Your task to perform on an android device: Is it going to rain this weekend? Image 0: 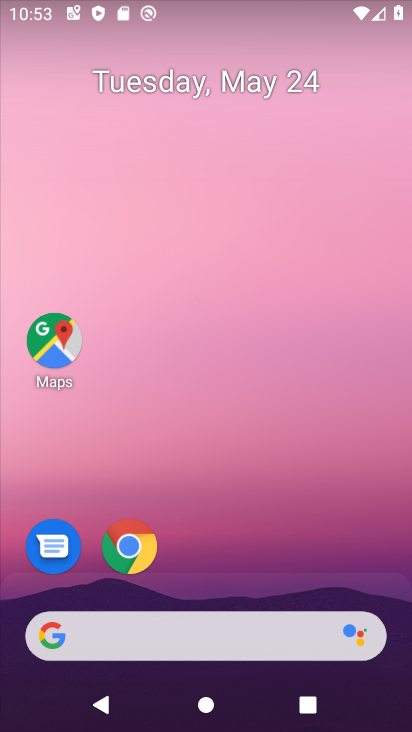
Step 0: click (160, 641)
Your task to perform on an android device: Is it going to rain this weekend? Image 1: 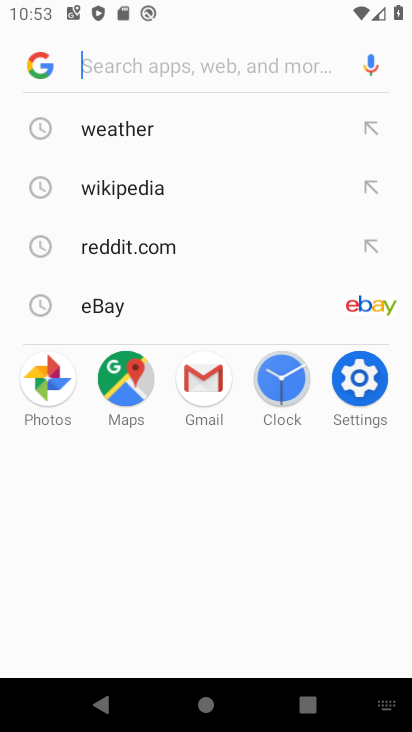
Step 1: click (156, 112)
Your task to perform on an android device: Is it going to rain this weekend? Image 2: 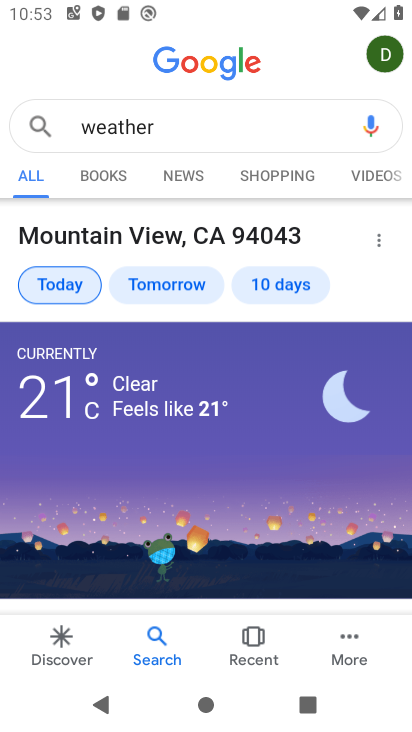
Step 2: click (260, 281)
Your task to perform on an android device: Is it going to rain this weekend? Image 3: 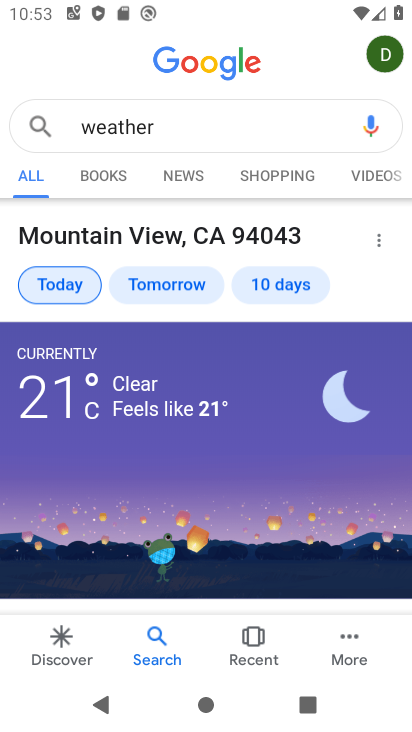
Step 3: click (269, 281)
Your task to perform on an android device: Is it going to rain this weekend? Image 4: 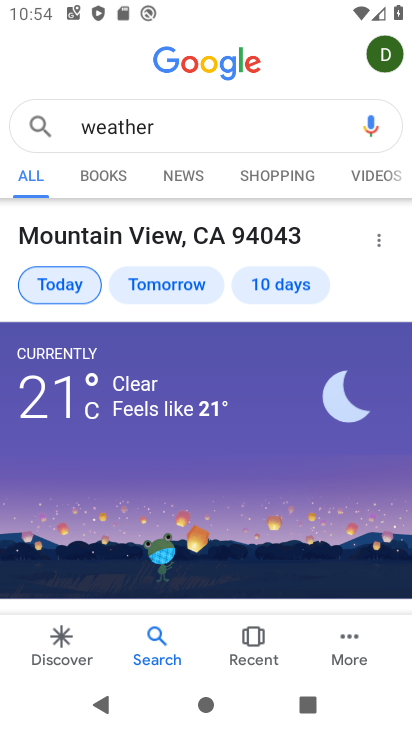
Step 4: drag from (162, 528) to (172, 121)
Your task to perform on an android device: Is it going to rain this weekend? Image 5: 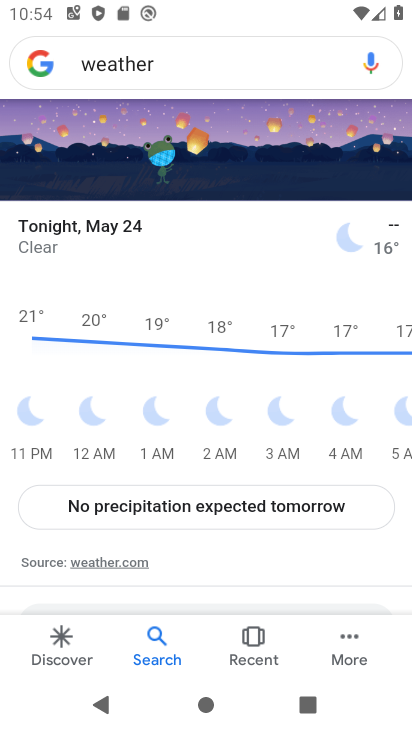
Step 5: click (177, 241)
Your task to perform on an android device: Is it going to rain this weekend? Image 6: 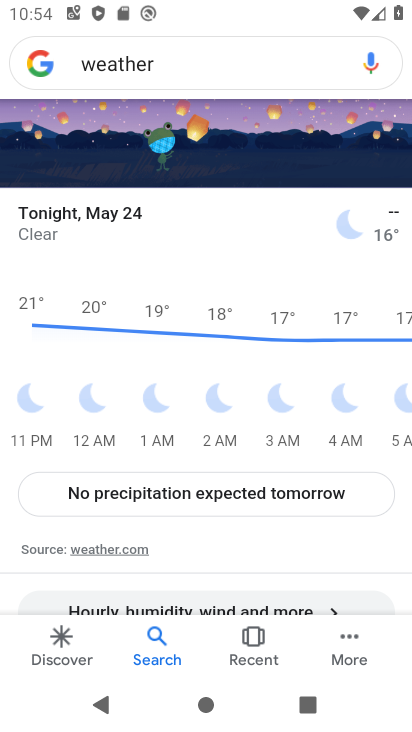
Step 6: drag from (222, 413) to (221, 213)
Your task to perform on an android device: Is it going to rain this weekend? Image 7: 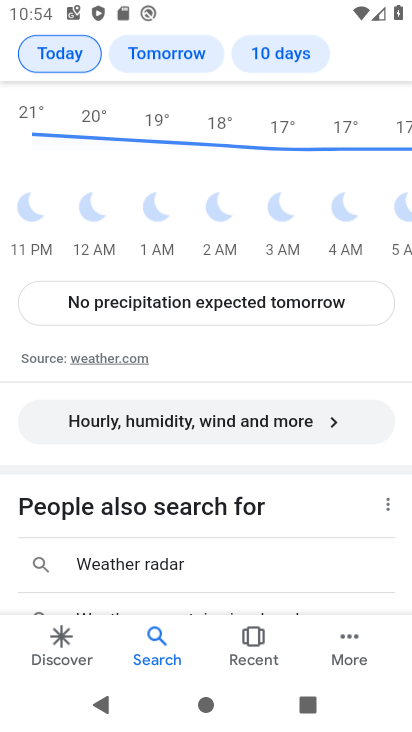
Step 7: click (89, 359)
Your task to perform on an android device: Is it going to rain this weekend? Image 8: 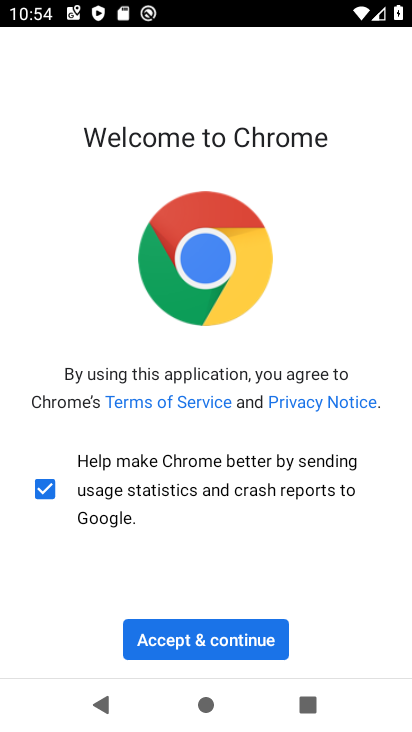
Step 8: click (244, 656)
Your task to perform on an android device: Is it going to rain this weekend? Image 9: 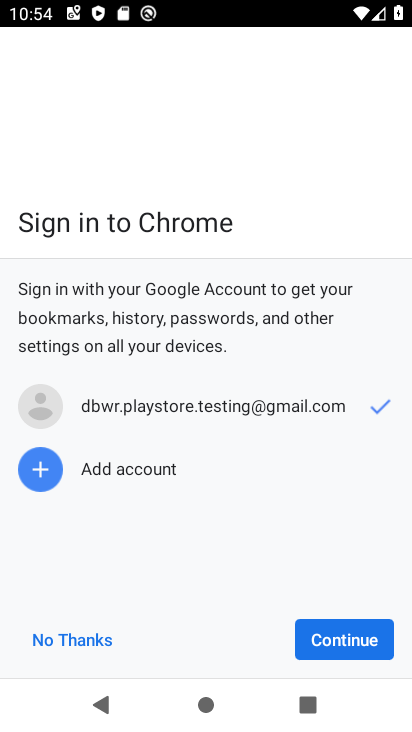
Step 9: click (340, 649)
Your task to perform on an android device: Is it going to rain this weekend? Image 10: 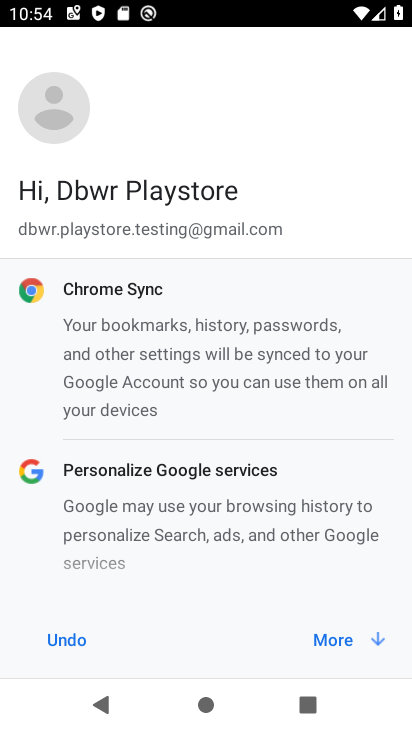
Step 10: click (340, 649)
Your task to perform on an android device: Is it going to rain this weekend? Image 11: 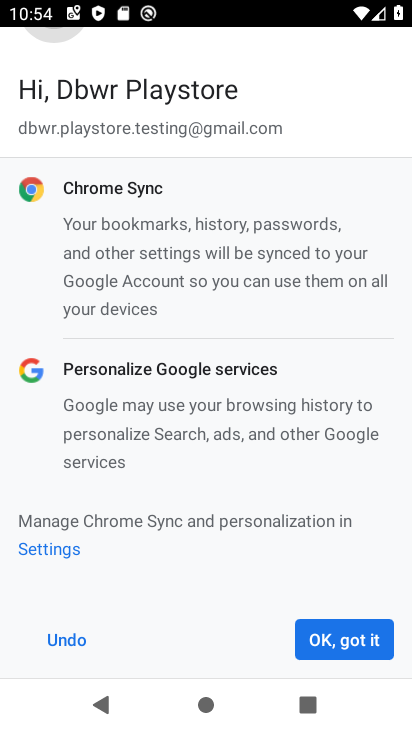
Step 11: click (340, 649)
Your task to perform on an android device: Is it going to rain this weekend? Image 12: 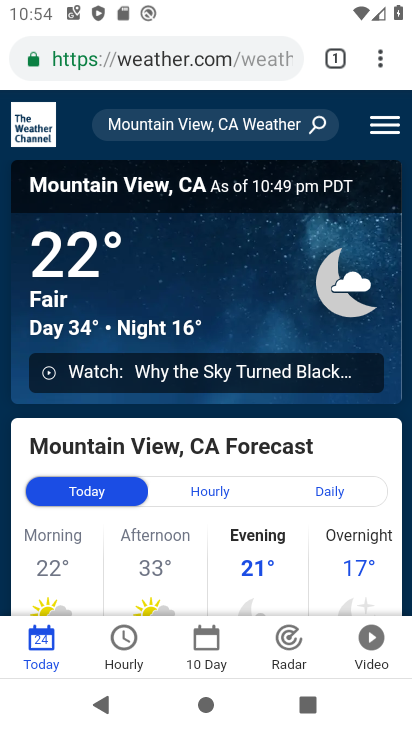
Step 12: click (209, 638)
Your task to perform on an android device: Is it going to rain this weekend? Image 13: 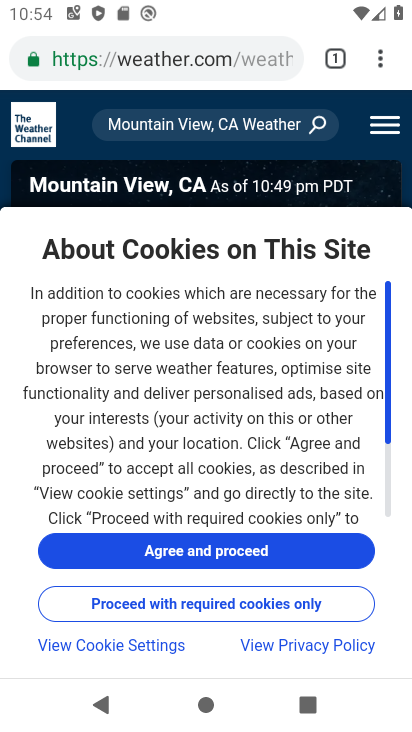
Step 13: click (196, 561)
Your task to perform on an android device: Is it going to rain this weekend? Image 14: 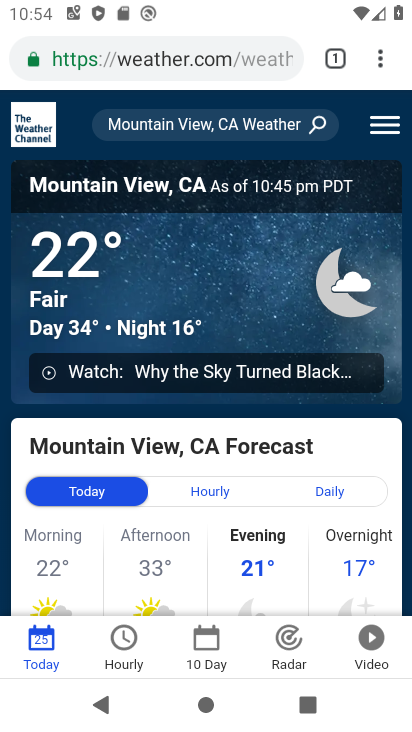
Step 14: click (204, 640)
Your task to perform on an android device: Is it going to rain this weekend? Image 15: 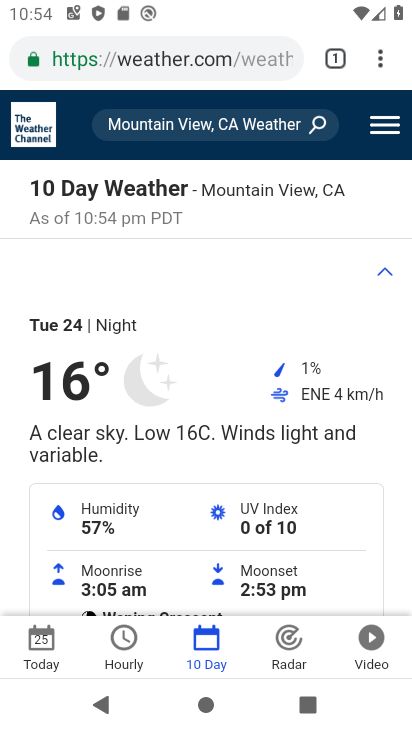
Step 15: task complete